Your task to perform on an android device: check the backup settings in the google photos Image 0: 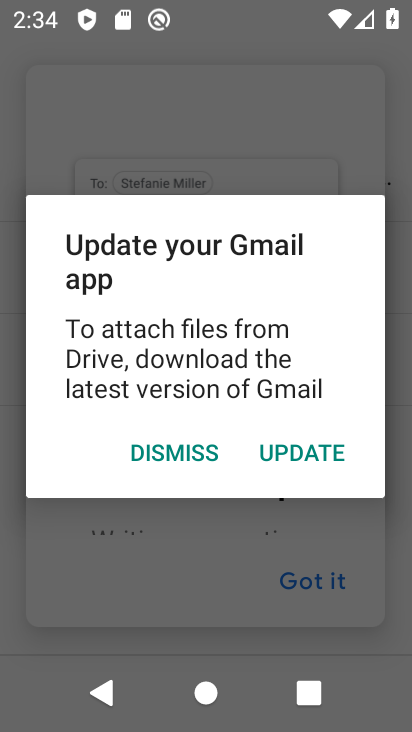
Step 0: press home button
Your task to perform on an android device: check the backup settings in the google photos Image 1: 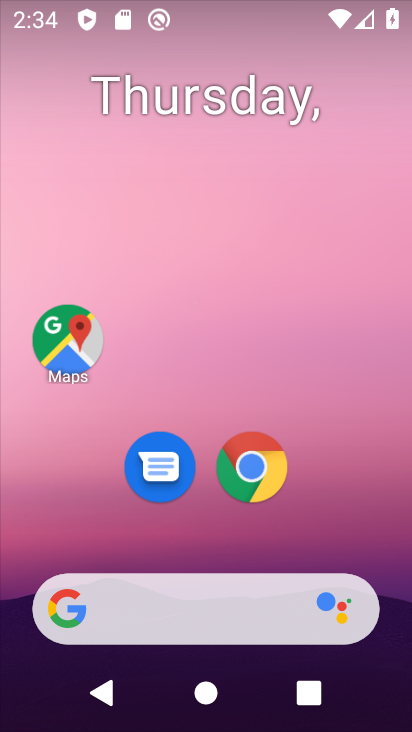
Step 1: drag from (179, 604) to (220, 100)
Your task to perform on an android device: check the backup settings in the google photos Image 2: 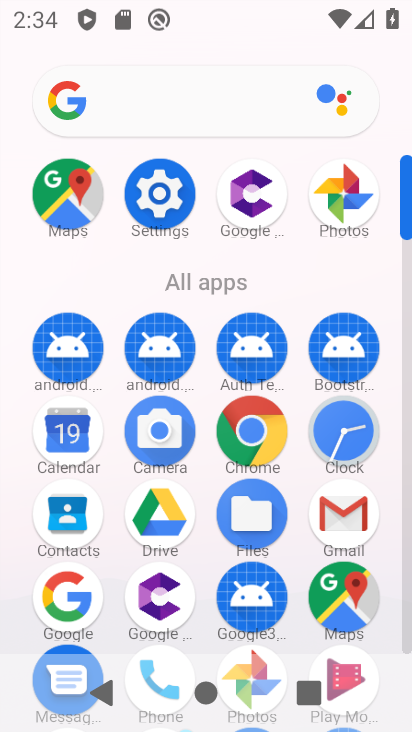
Step 2: click (168, 189)
Your task to perform on an android device: check the backup settings in the google photos Image 3: 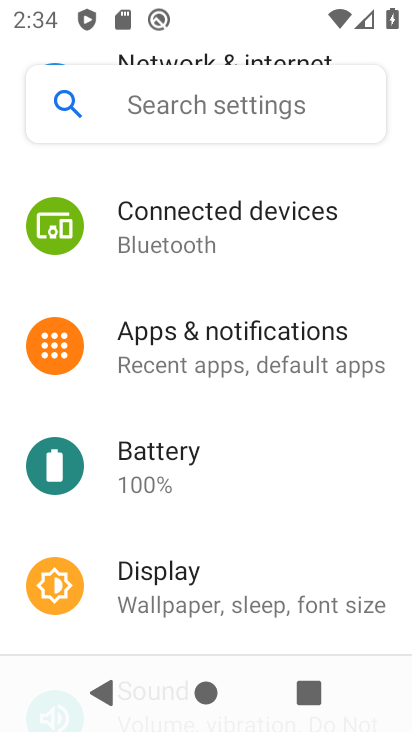
Step 3: drag from (240, 381) to (230, 100)
Your task to perform on an android device: check the backup settings in the google photos Image 4: 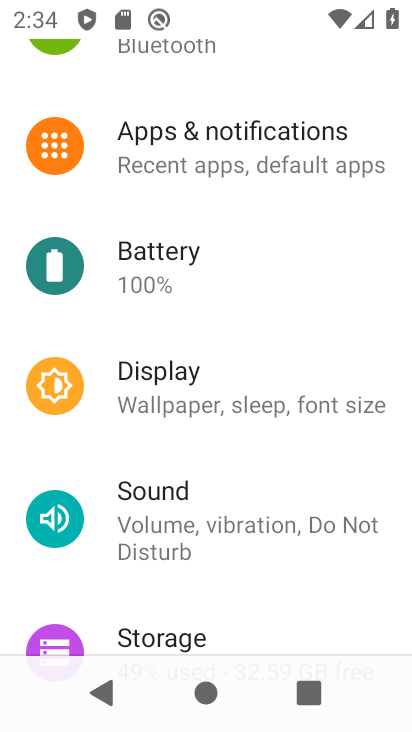
Step 4: drag from (185, 495) to (182, 363)
Your task to perform on an android device: check the backup settings in the google photos Image 5: 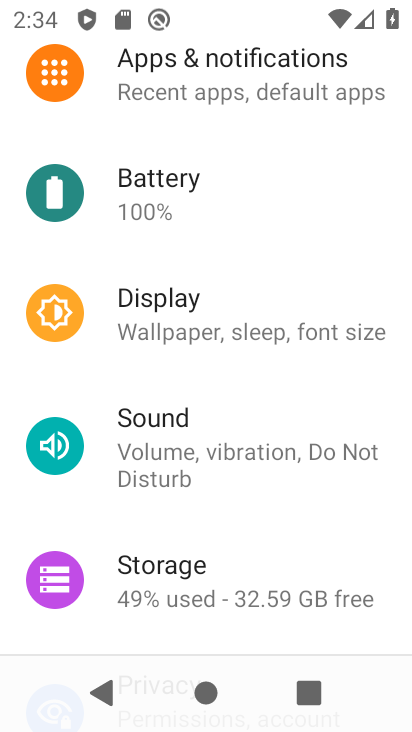
Step 5: press home button
Your task to perform on an android device: check the backup settings in the google photos Image 6: 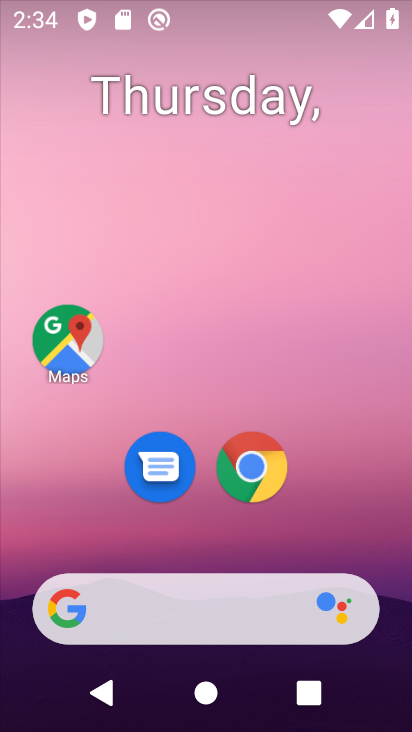
Step 6: drag from (130, 617) to (221, 88)
Your task to perform on an android device: check the backup settings in the google photos Image 7: 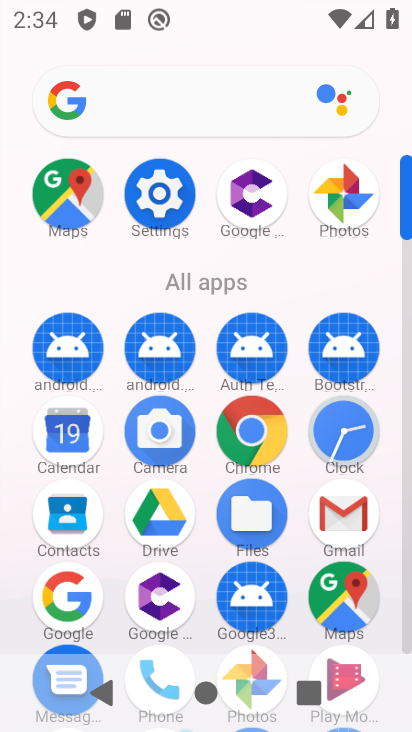
Step 7: click (325, 210)
Your task to perform on an android device: check the backup settings in the google photos Image 8: 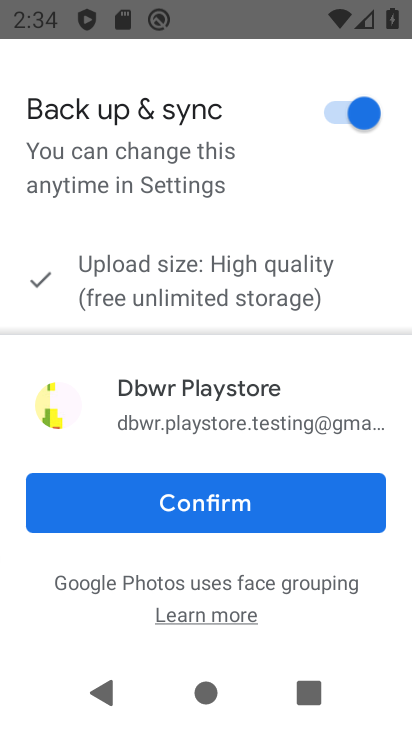
Step 8: click (57, 98)
Your task to perform on an android device: check the backup settings in the google photos Image 9: 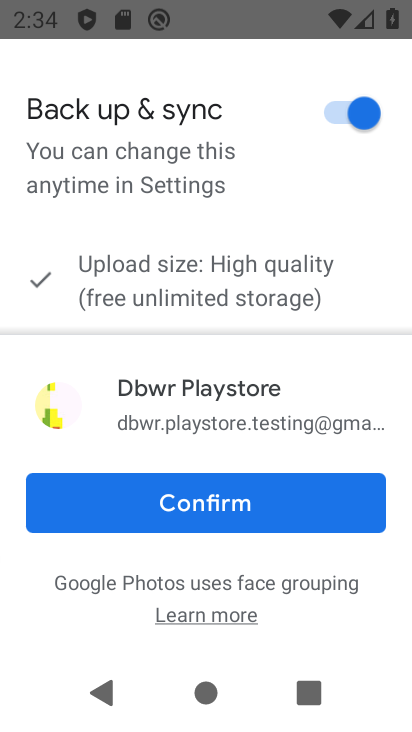
Step 9: click (199, 511)
Your task to perform on an android device: check the backup settings in the google photos Image 10: 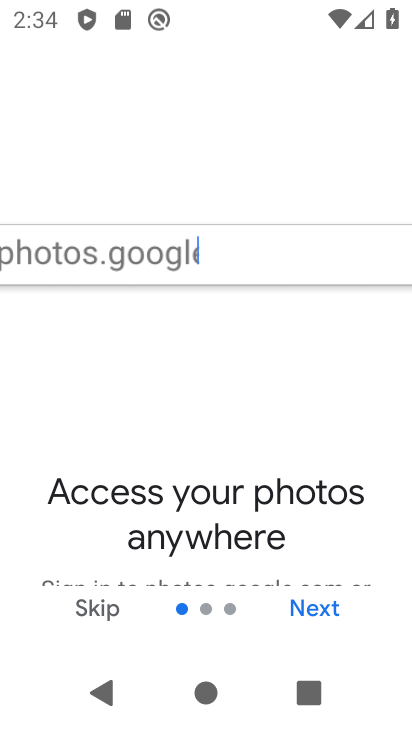
Step 10: click (109, 620)
Your task to perform on an android device: check the backup settings in the google photos Image 11: 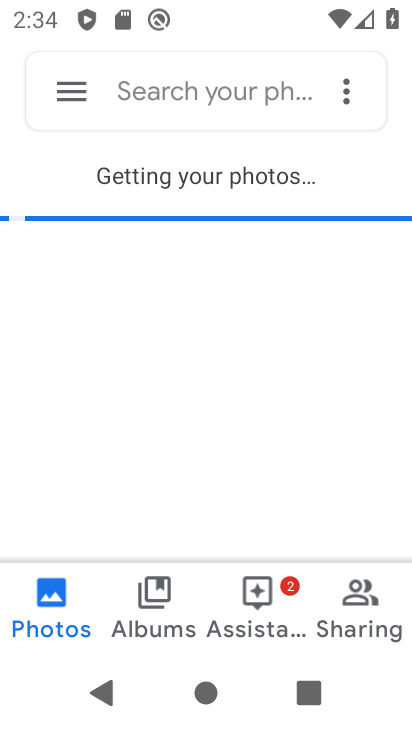
Step 11: click (66, 111)
Your task to perform on an android device: check the backup settings in the google photos Image 12: 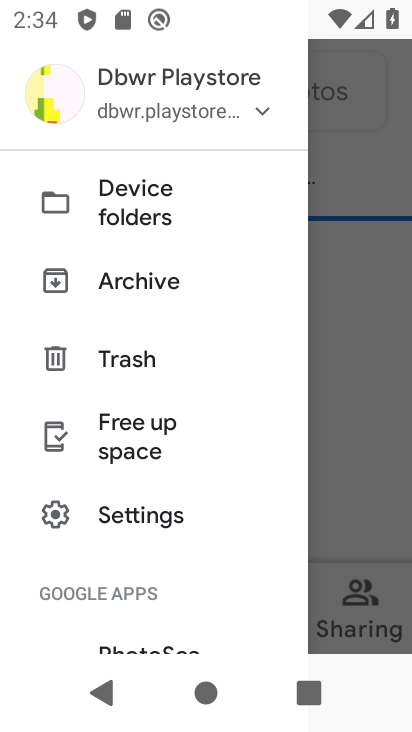
Step 12: click (149, 511)
Your task to perform on an android device: check the backup settings in the google photos Image 13: 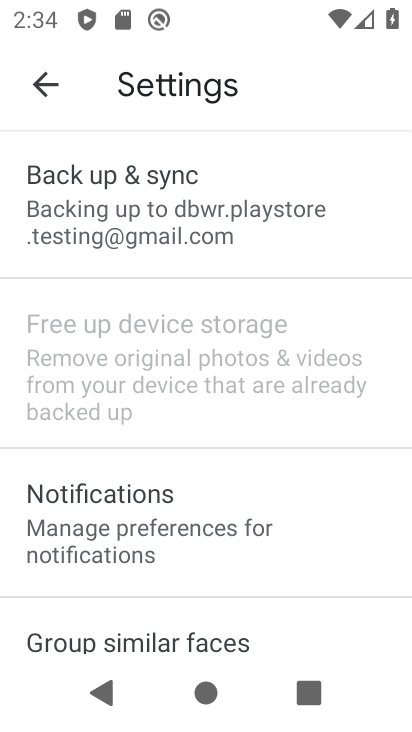
Step 13: task complete